Your task to perform on an android device: turn pop-ups on in chrome Image 0: 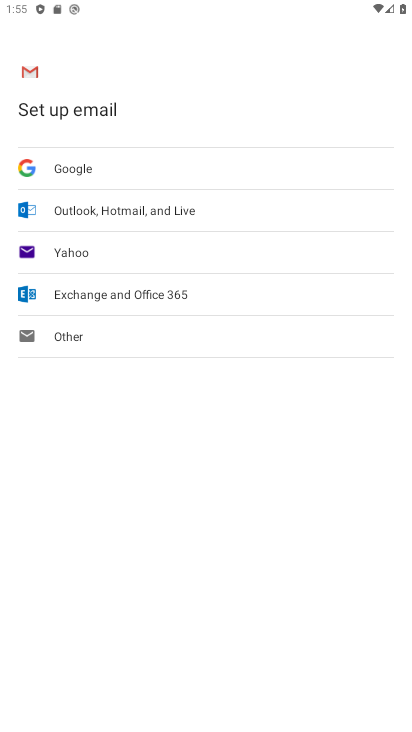
Step 0: press back button
Your task to perform on an android device: turn pop-ups on in chrome Image 1: 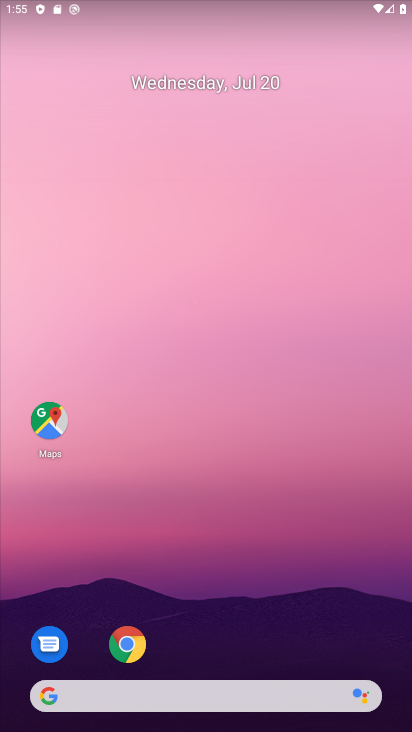
Step 1: click (102, 645)
Your task to perform on an android device: turn pop-ups on in chrome Image 2: 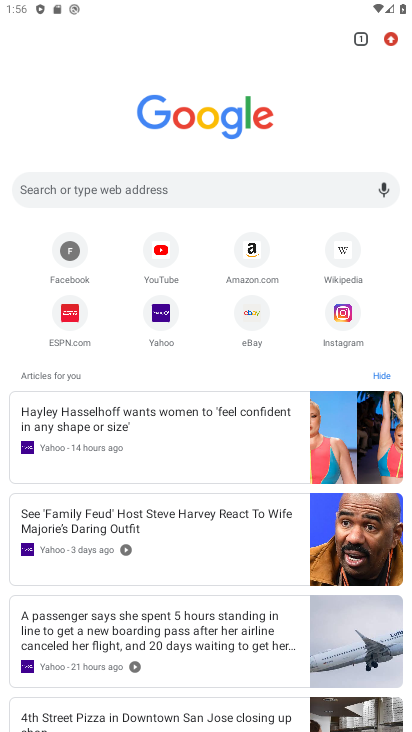
Step 2: drag from (387, 38) to (238, 359)
Your task to perform on an android device: turn pop-ups on in chrome Image 3: 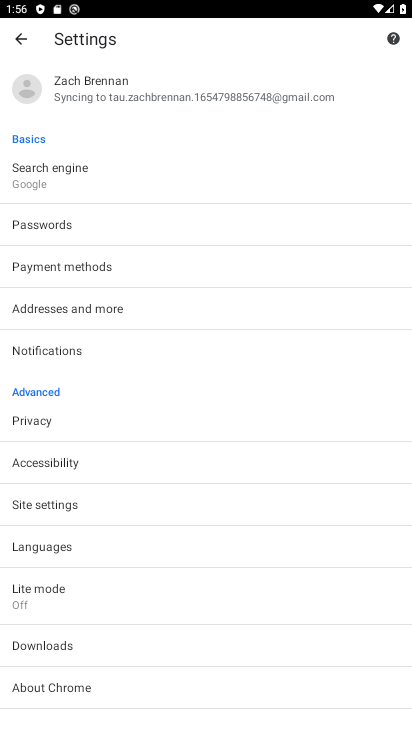
Step 3: click (59, 506)
Your task to perform on an android device: turn pop-ups on in chrome Image 4: 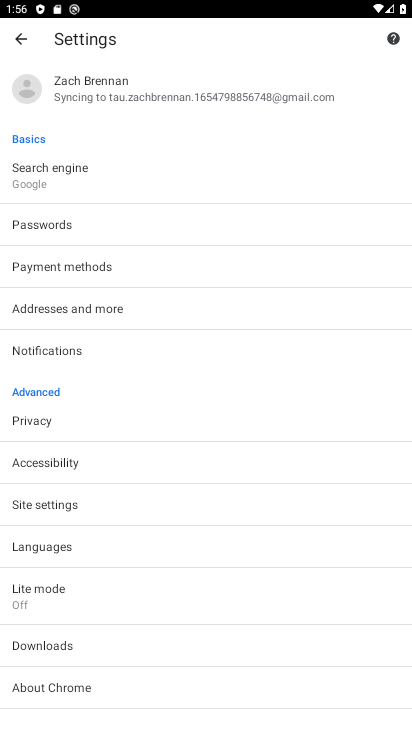
Step 4: click (70, 490)
Your task to perform on an android device: turn pop-ups on in chrome Image 5: 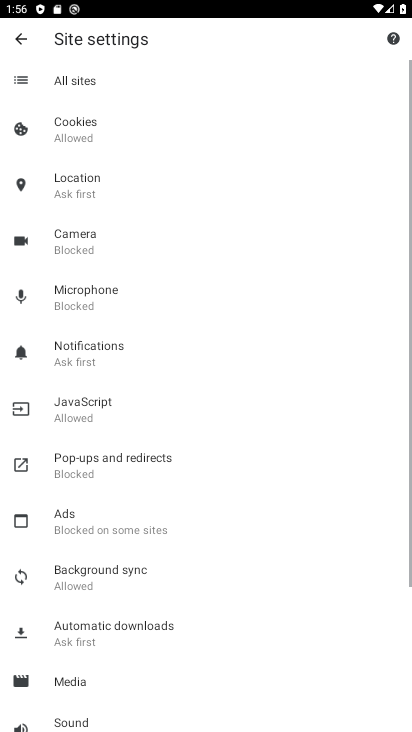
Step 5: click (90, 466)
Your task to perform on an android device: turn pop-ups on in chrome Image 6: 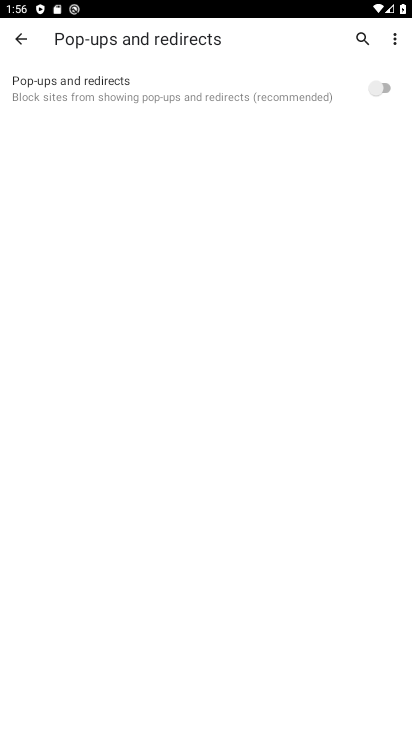
Step 6: click (376, 92)
Your task to perform on an android device: turn pop-ups on in chrome Image 7: 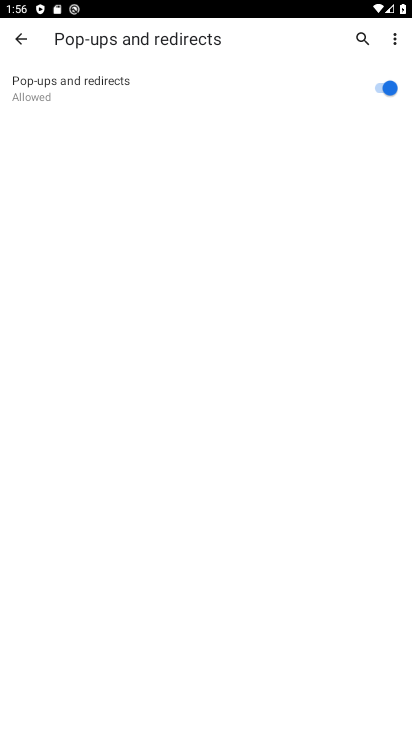
Step 7: task complete